Your task to perform on an android device: Show me the alarms in the clock app Image 0: 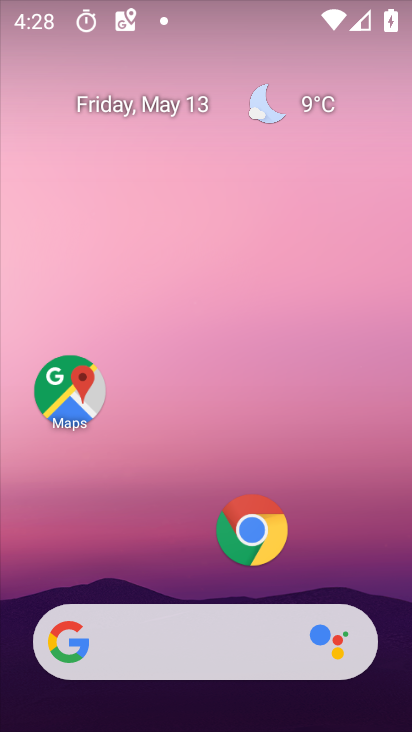
Step 0: drag from (192, 567) to (274, 50)
Your task to perform on an android device: Show me the alarms in the clock app Image 1: 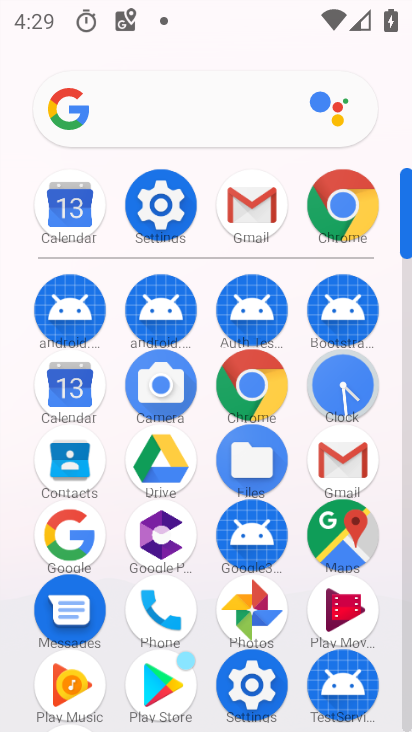
Step 1: click (341, 379)
Your task to perform on an android device: Show me the alarms in the clock app Image 2: 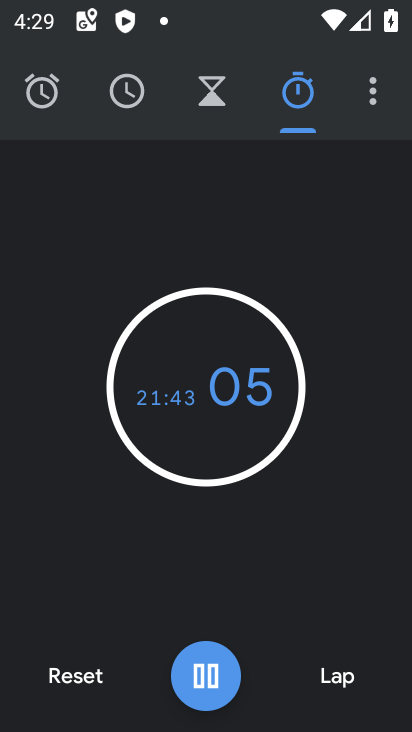
Step 2: click (50, 121)
Your task to perform on an android device: Show me the alarms in the clock app Image 3: 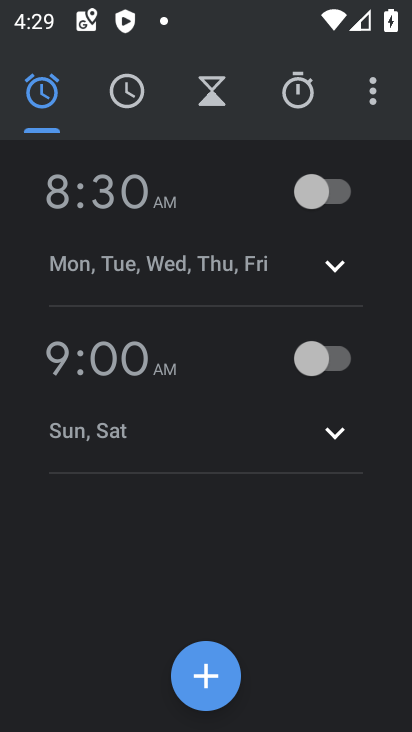
Step 3: task complete